Your task to perform on an android device: Open the map Image 0: 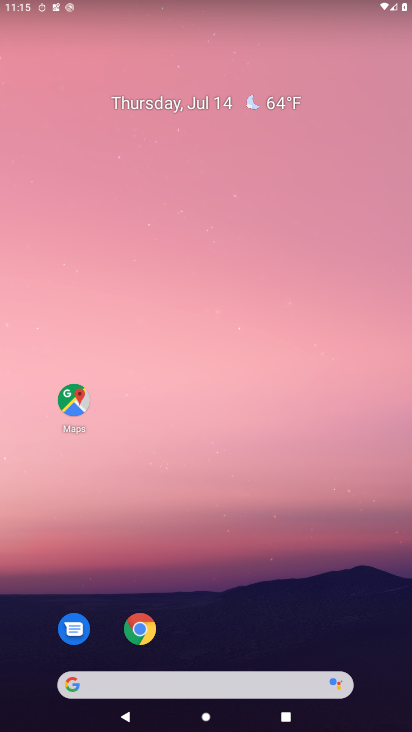
Step 0: click (94, 402)
Your task to perform on an android device: Open the map Image 1: 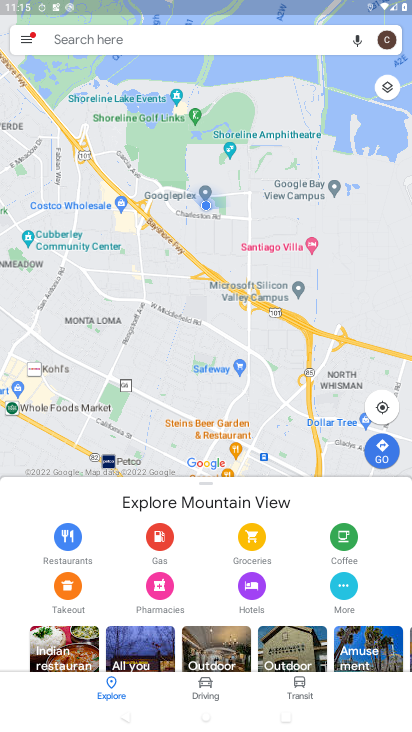
Step 1: task complete